Your task to perform on an android device: change the clock display to show seconds Image 0: 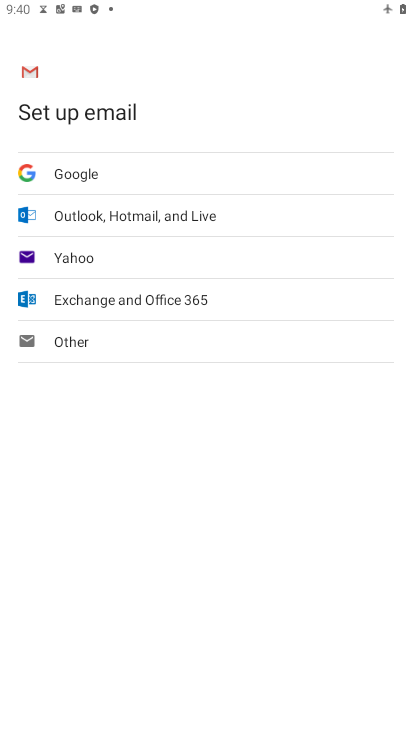
Step 0: press home button
Your task to perform on an android device: change the clock display to show seconds Image 1: 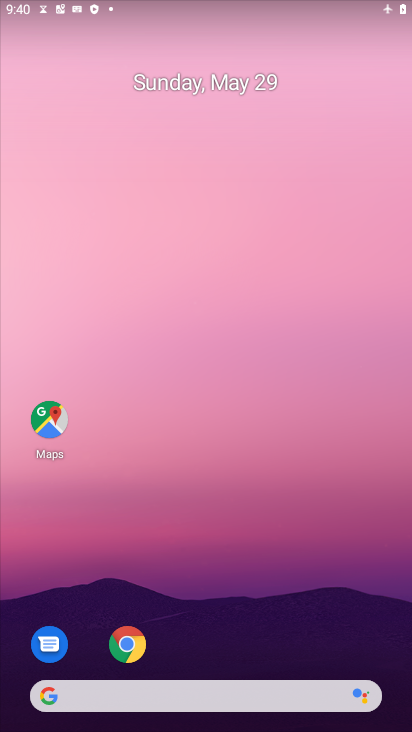
Step 1: drag from (253, 655) to (212, 317)
Your task to perform on an android device: change the clock display to show seconds Image 2: 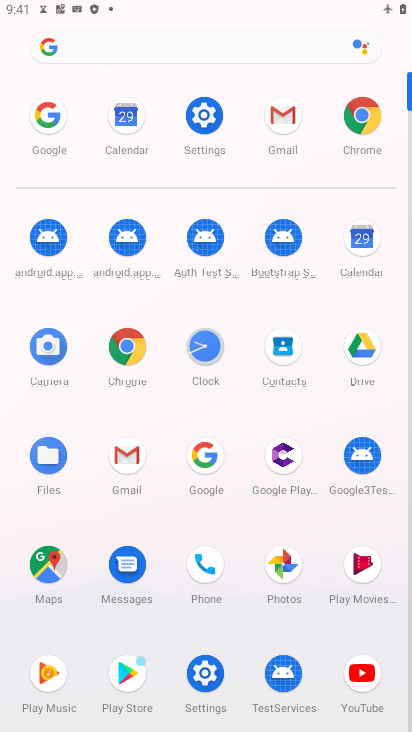
Step 2: click (203, 340)
Your task to perform on an android device: change the clock display to show seconds Image 3: 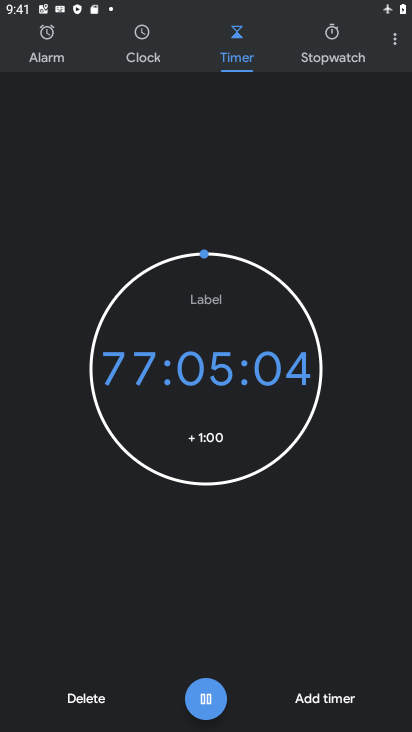
Step 3: click (404, 34)
Your task to perform on an android device: change the clock display to show seconds Image 4: 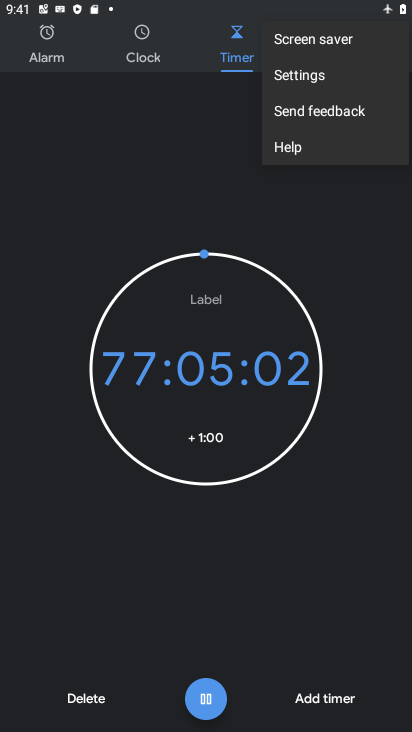
Step 4: click (309, 69)
Your task to perform on an android device: change the clock display to show seconds Image 5: 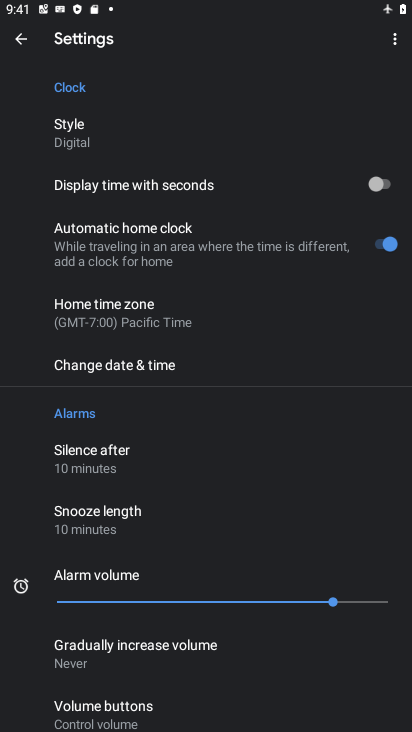
Step 5: click (396, 184)
Your task to perform on an android device: change the clock display to show seconds Image 6: 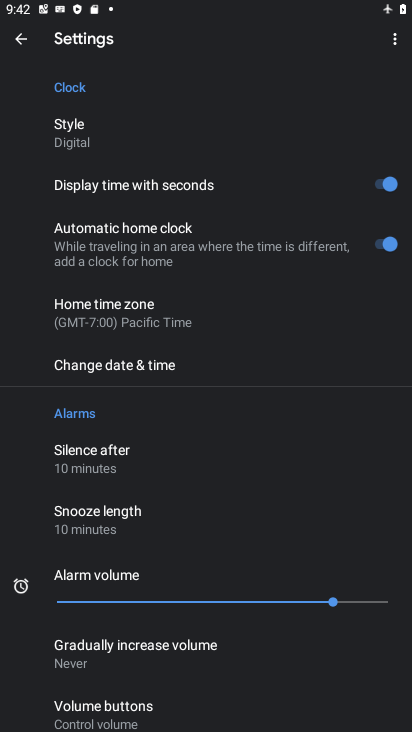
Step 6: task complete